Your task to perform on an android device: check the backup settings in the google photos Image 0: 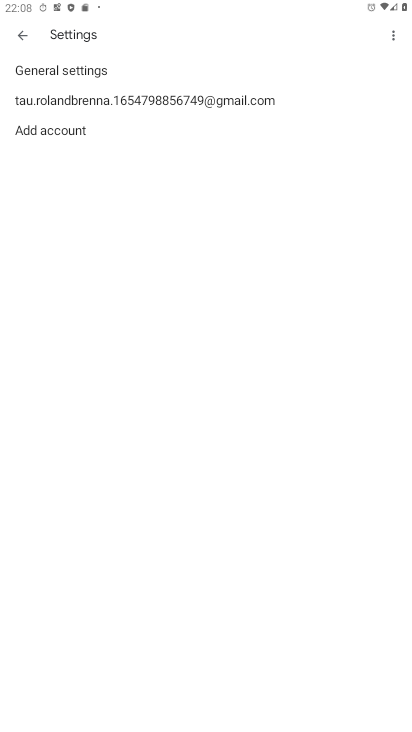
Step 0: drag from (211, 463) to (211, 110)
Your task to perform on an android device: check the backup settings in the google photos Image 1: 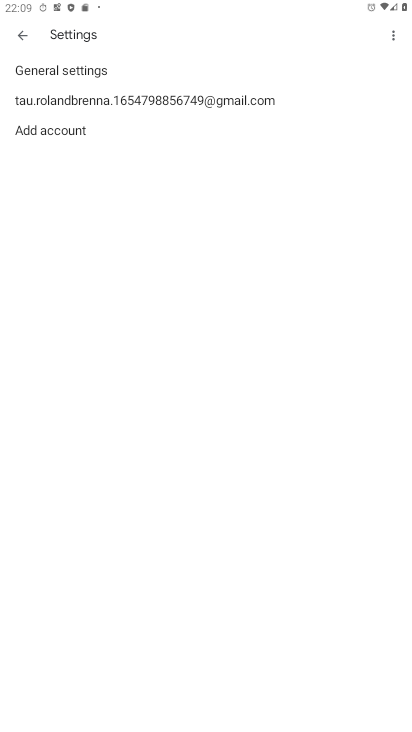
Step 1: drag from (242, 507) to (285, 289)
Your task to perform on an android device: check the backup settings in the google photos Image 2: 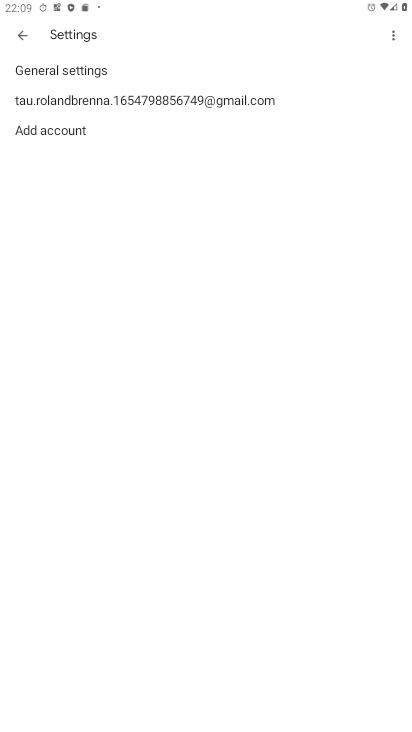
Step 2: press home button
Your task to perform on an android device: check the backup settings in the google photos Image 3: 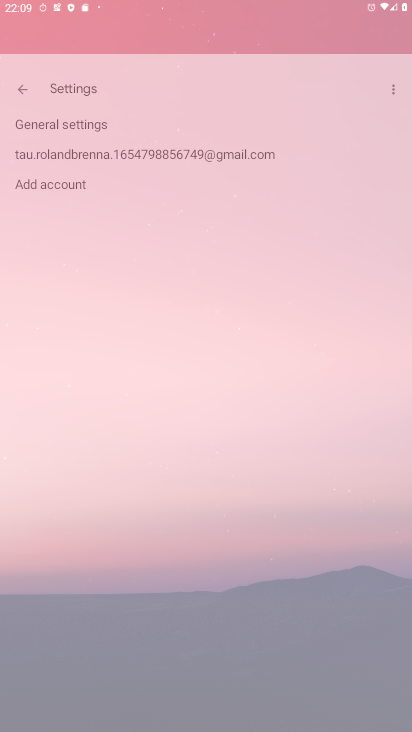
Step 3: drag from (232, 576) to (315, 65)
Your task to perform on an android device: check the backup settings in the google photos Image 4: 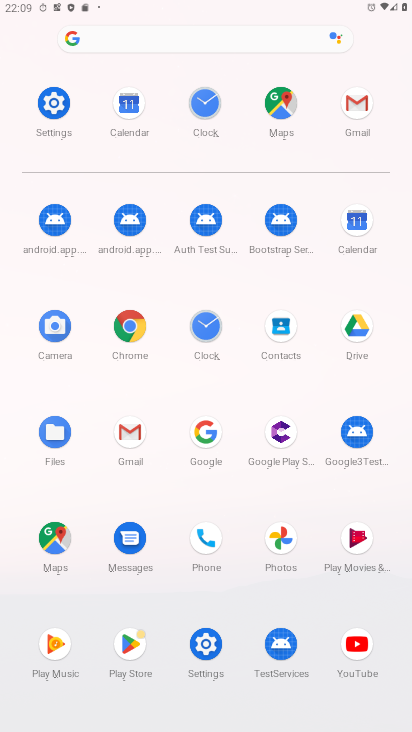
Step 4: click (275, 536)
Your task to perform on an android device: check the backup settings in the google photos Image 5: 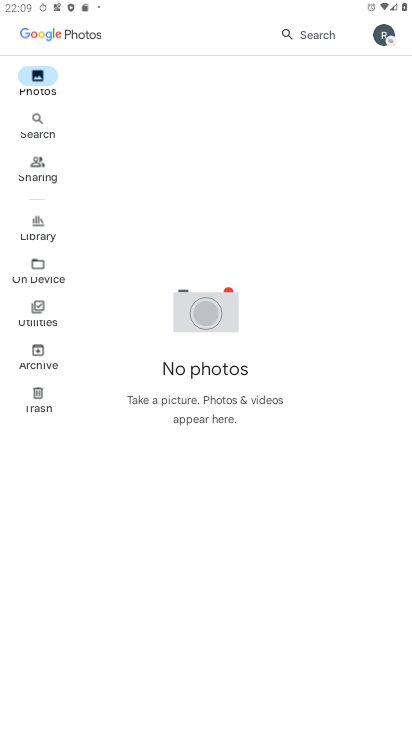
Step 5: click (389, 34)
Your task to perform on an android device: check the backup settings in the google photos Image 6: 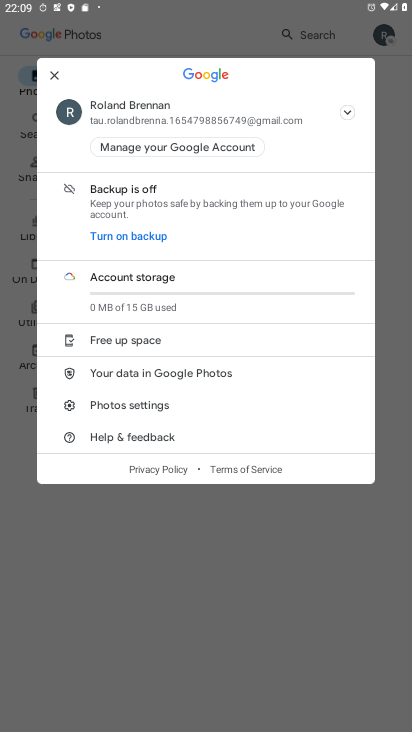
Step 6: click (134, 404)
Your task to perform on an android device: check the backup settings in the google photos Image 7: 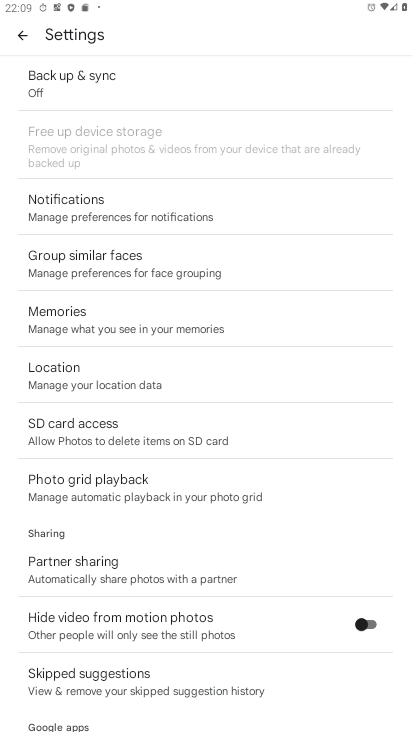
Step 7: click (83, 92)
Your task to perform on an android device: check the backup settings in the google photos Image 8: 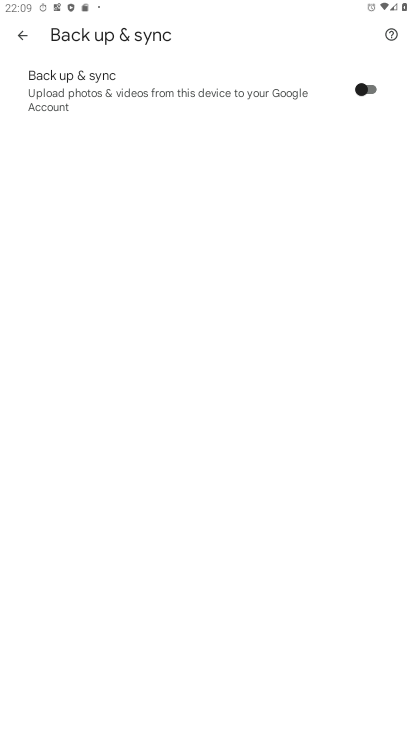
Step 8: click (368, 74)
Your task to perform on an android device: check the backup settings in the google photos Image 9: 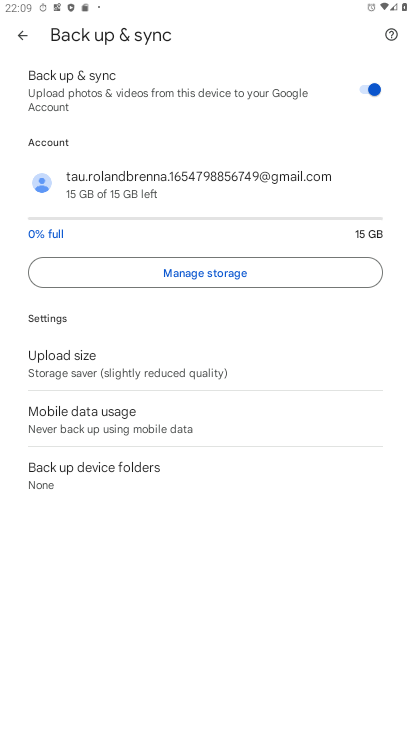
Step 9: task complete